Your task to perform on an android device: Open the calendar and show me this week's events? Image 0: 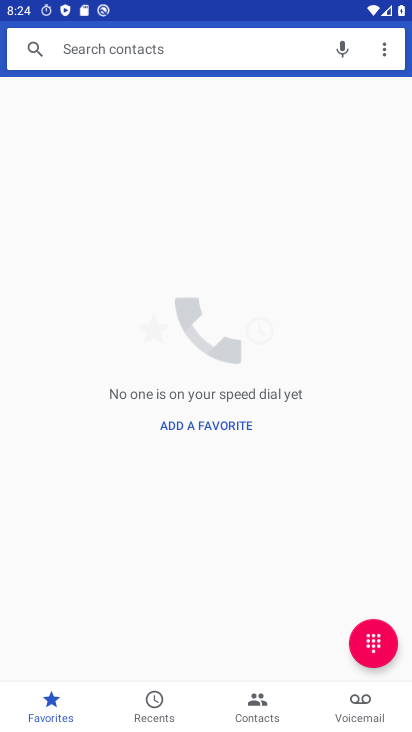
Step 0: press home button
Your task to perform on an android device: Open the calendar and show me this week's events? Image 1: 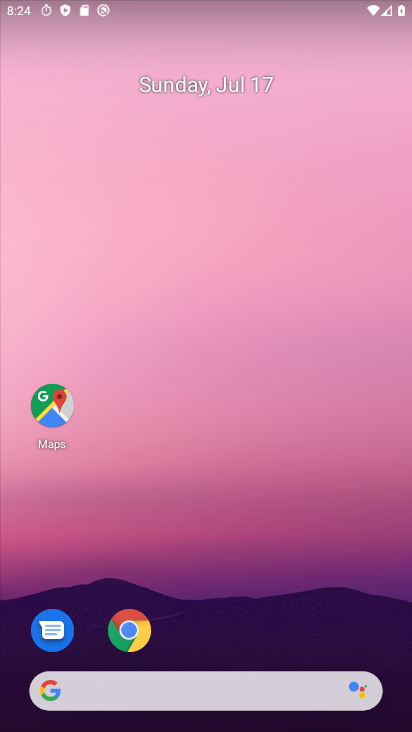
Step 1: drag from (18, 674) to (225, 3)
Your task to perform on an android device: Open the calendar and show me this week's events? Image 2: 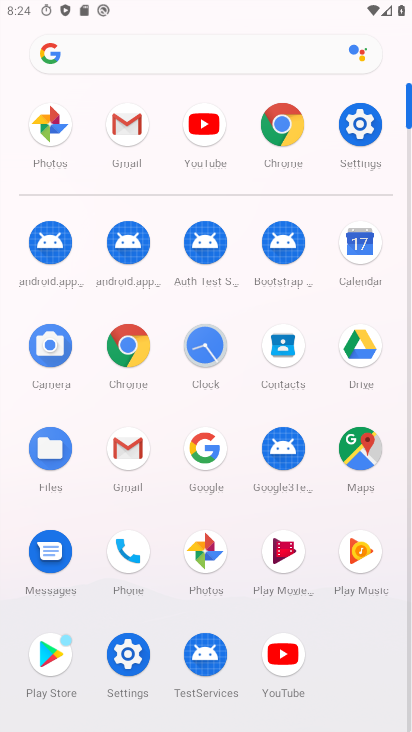
Step 2: click (368, 235)
Your task to perform on an android device: Open the calendar and show me this week's events? Image 3: 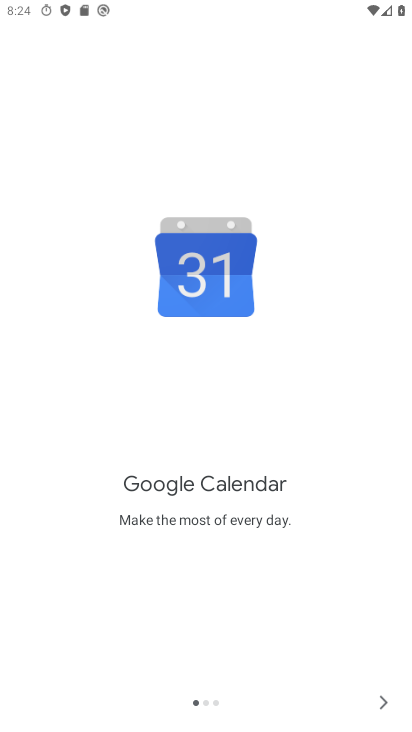
Step 3: click (382, 703)
Your task to perform on an android device: Open the calendar and show me this week's events? Image 4: 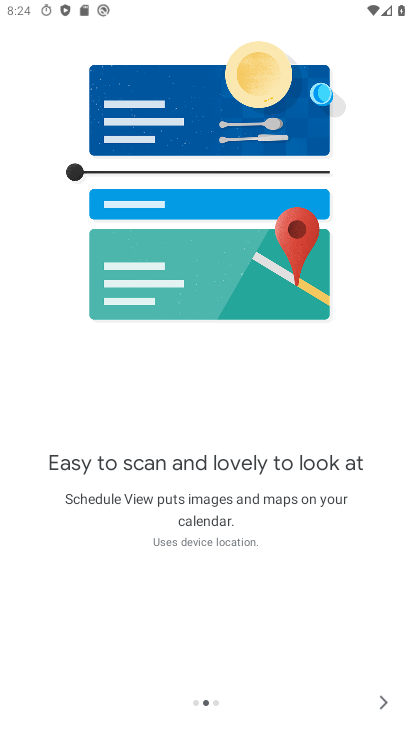
Step 4: click (373, 661)
Your task to perform on an android device: Open the calendar and show me this week's events? Image 5: 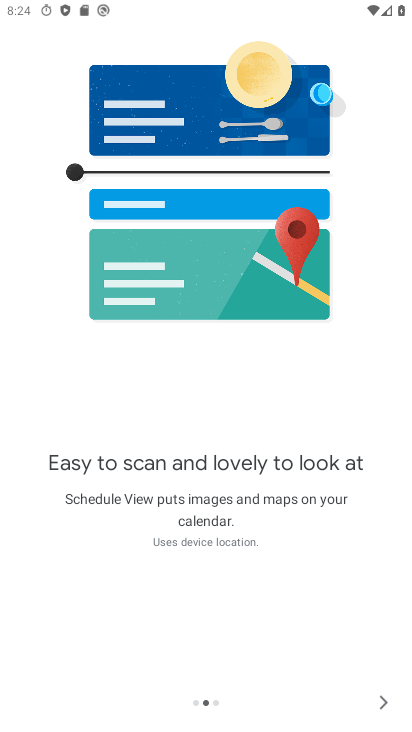
Step 5: click (374, 708)
Your task to perform on an android device: Open the calendar and show me this week's events? Image 6: 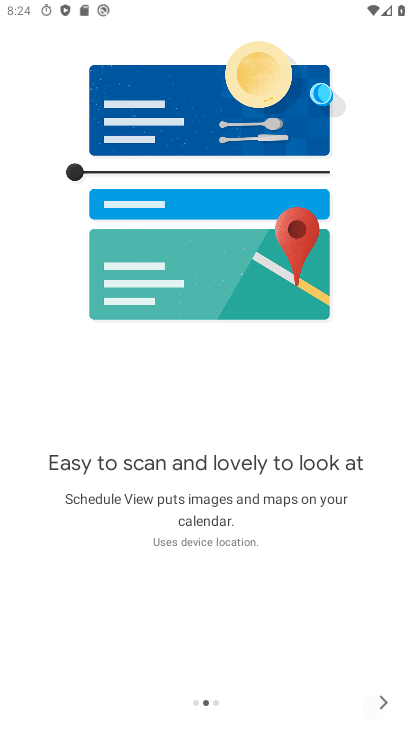
Step 6: click (377, 695)
Your task to perform on an android device: Open the calendar and show me this week's events? Image 7: 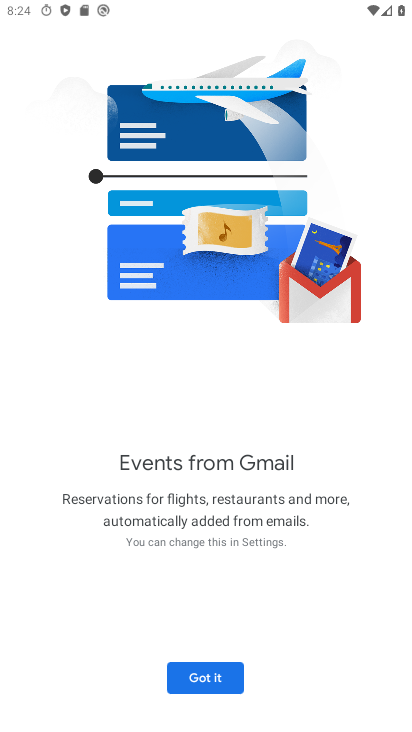
Step 7: click (173, 667)
Your task to perform on an android device: Open the calendar and show me this week's events? Image 8: 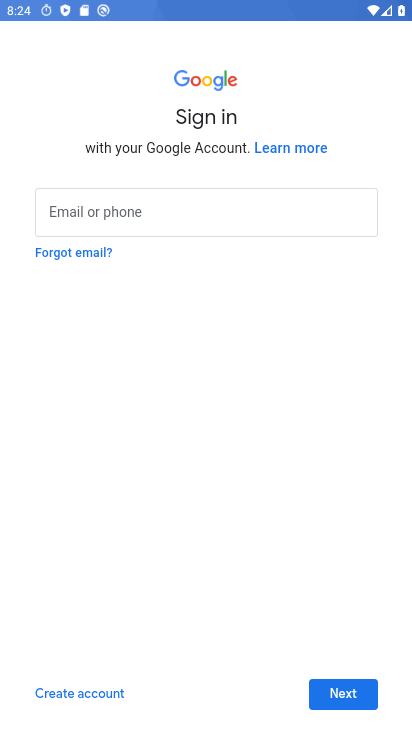
Step 8: task complete